Your task to perform on an android device: star an email in the gmail app Image 0: 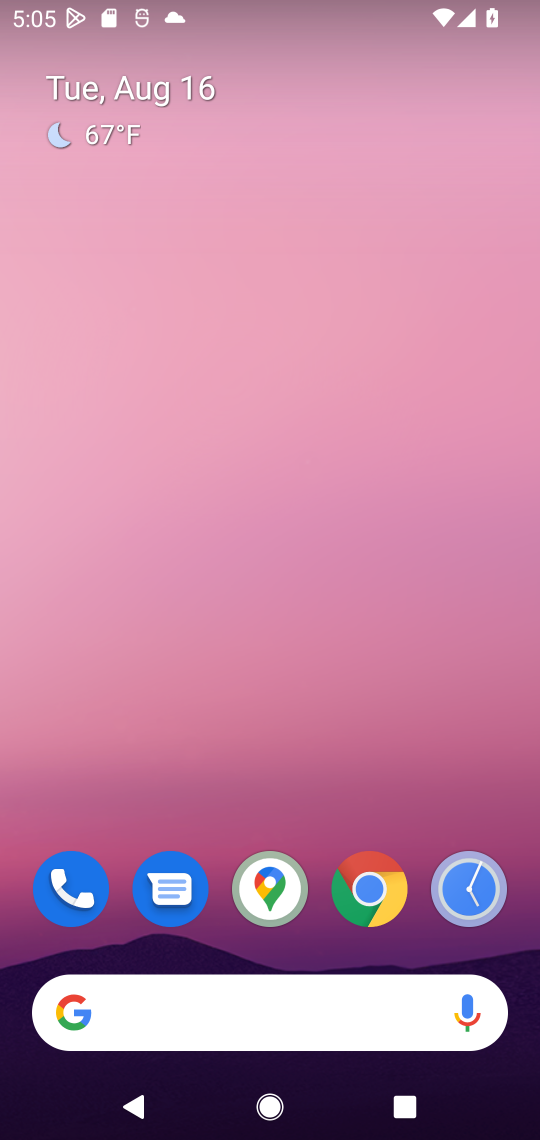
Step 0: drag from (317, 695) to (338, 74)
Your task to perform on an android device: star an email in the gmail app Image 1: 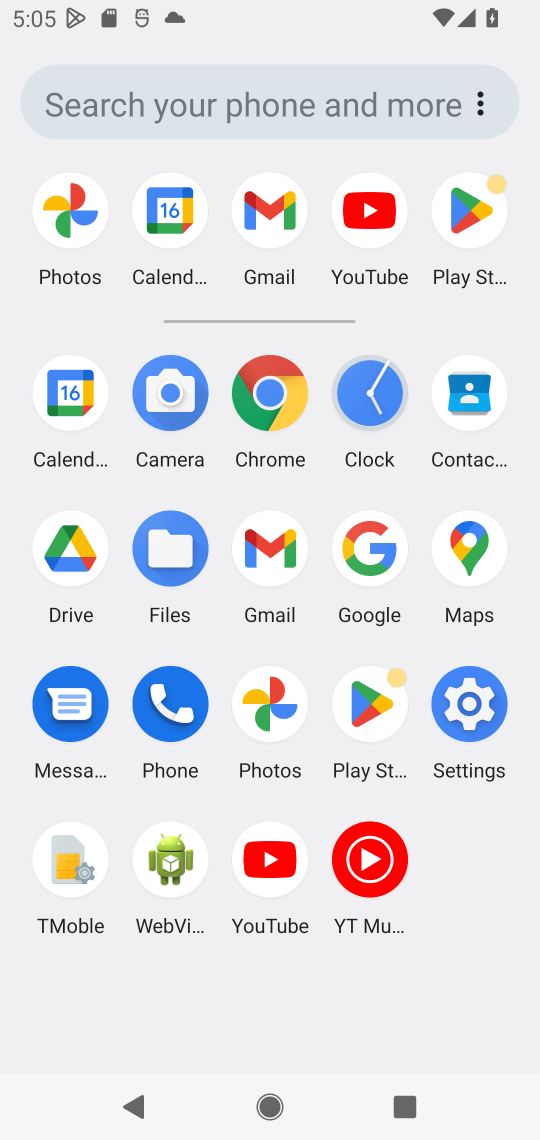
Step 1: click (280, 564)
Your task to perform on an android device: star an email in the gmail app Image 2: 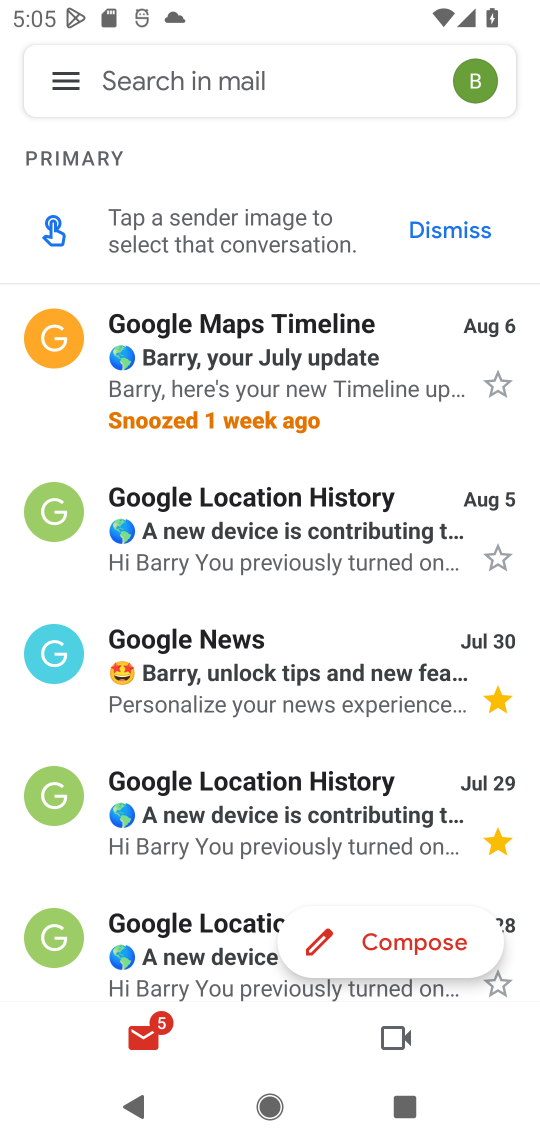
Step 2: task complete